Your task to perform on an android device: change the clock display to digital Image 0: 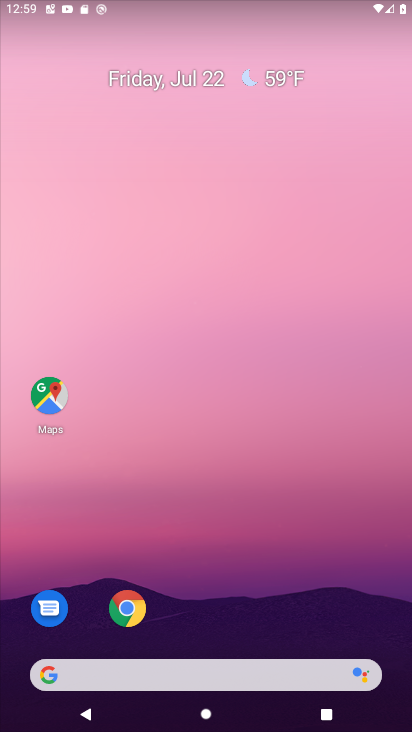
Step 0: drag from (225, 627) to (247, 240)
Your task to perform on an android device: change the clock display to digital Image 1: 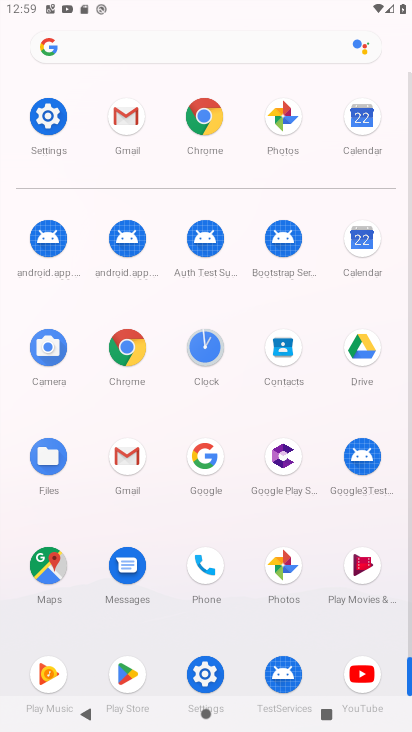
Step 1: click (200, 350)
Your task to perform on an android device: change the clock display to digital Image 2: 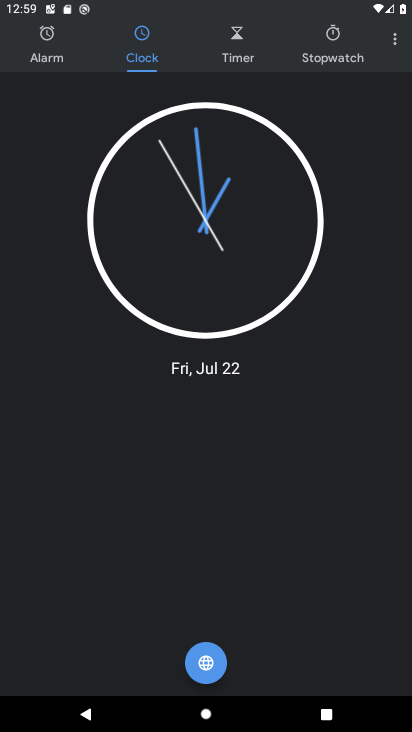
Step 2: click (386, 37)
Your task to perform on an android device: change the clock display to digital Image 3: 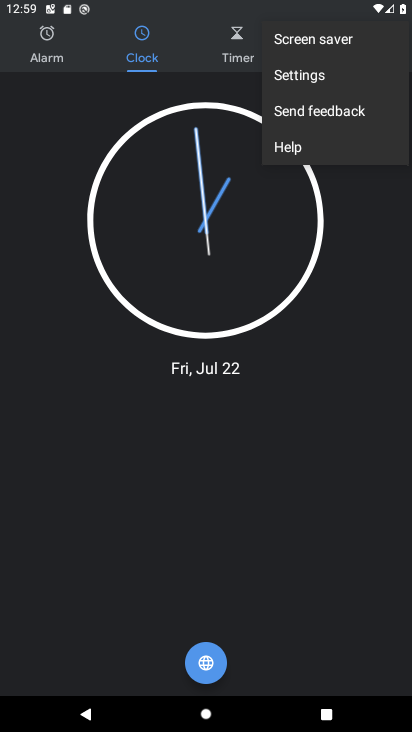
Step 3: click (322, 77)
Your task to perform on an android device: change the clock display to digital Image 4: 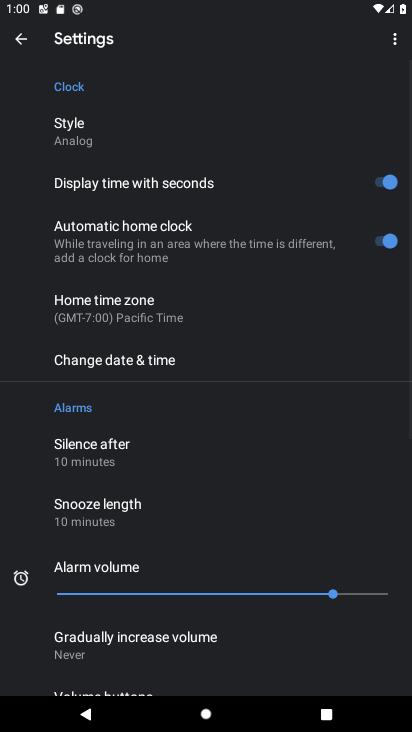
Step 4: click (76, 140)
Your task to perform on an android device: change the clock display to digital Image 5: 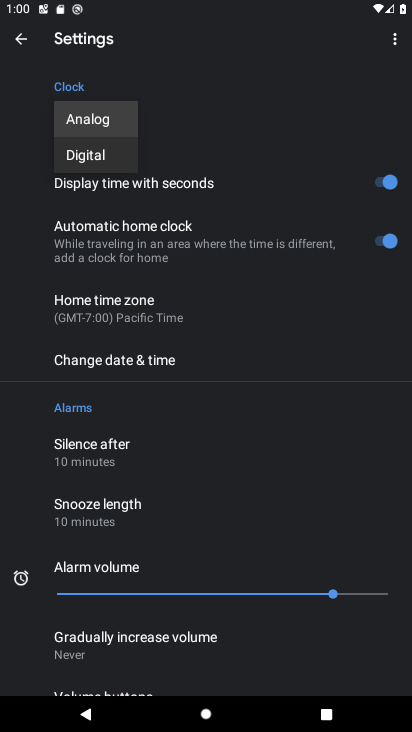
Step 5: click (100, 164)
Your task to perform on an android device: change the clock display to digital Image 6: 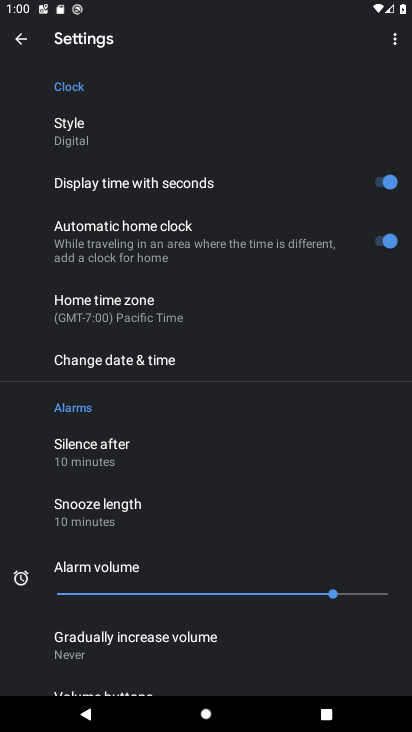
Step 6: task complete